Your task to perform on an android device: Open Amazon Image 0: 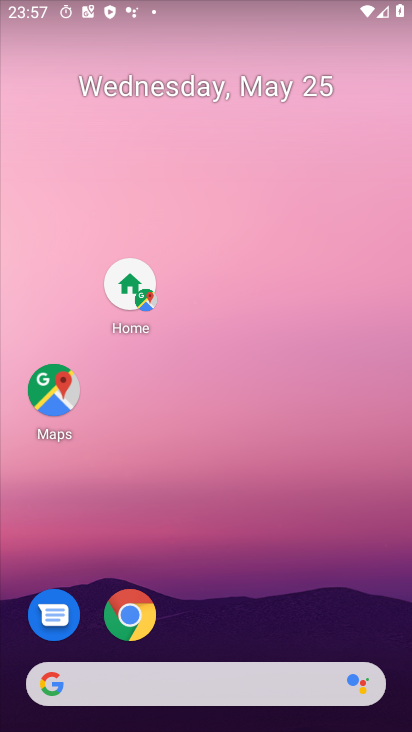
Step 0: press home button
Your task to perform on an android device: Open Amazon Image 1: 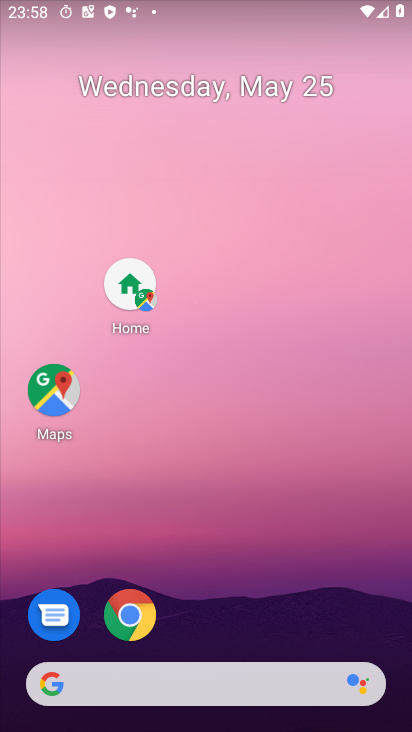
Step 1: click (46, 682)
Your task to perform on an android device: Open Amazon Image 2: 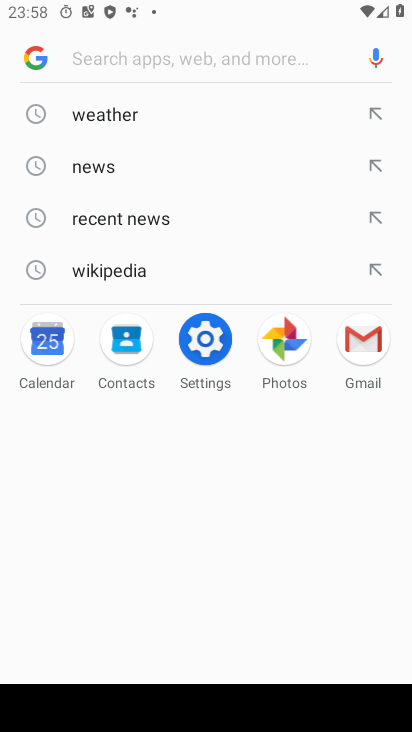
Step 2: type "Amazon"
Your task to perform on an android device: Open Amazon Image 3: 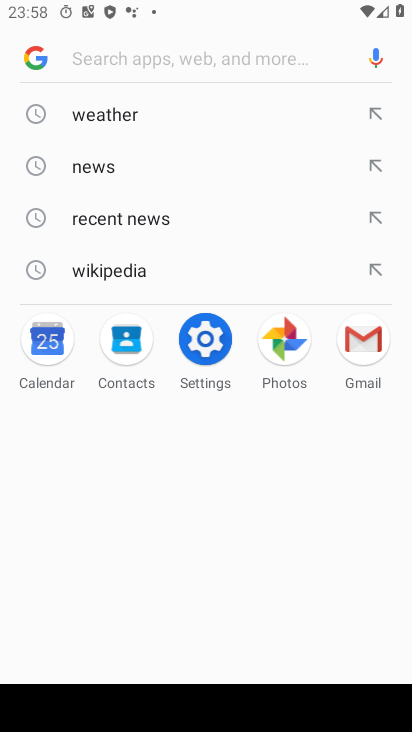
Step 3: click (230, 56)
Your task to perform on an android device: Open Amazon Image 4: 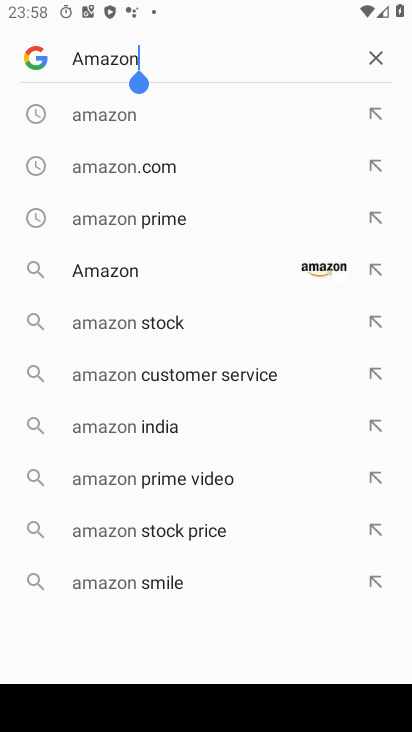
Step 4: click (102, 124)
Your task to perform on an android device: Open Amazon Image 5: 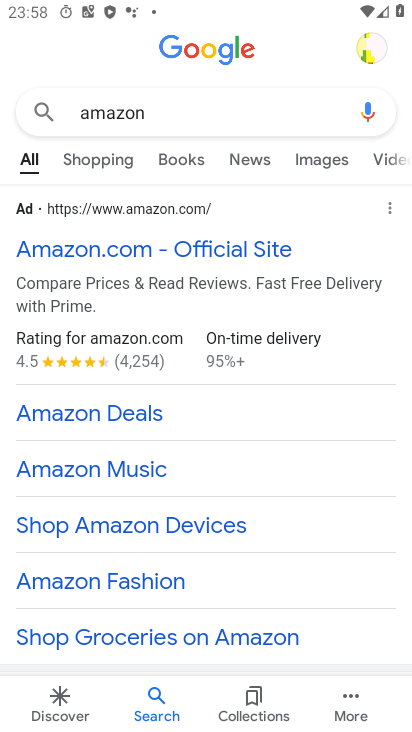
Step 5: click (143, 252)
Your task to perform on an android device: Open Amazon Image 6: 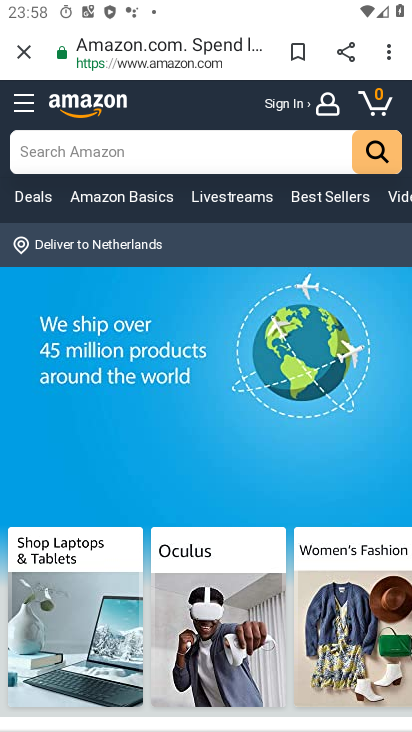
Step 6: task complete